Your task to perform on an android device: Show me the alarms in the clock app Image 0: 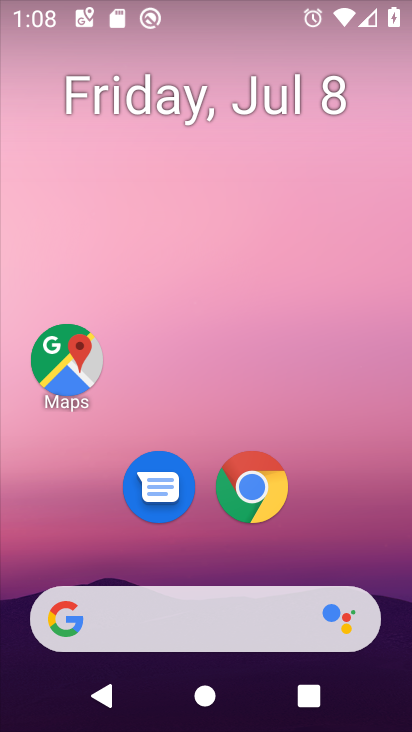
Step 0: drag from (375, 530) to (353, 123)
Your task to perform on an android device: Show me the alarms in the clock app Image 1: 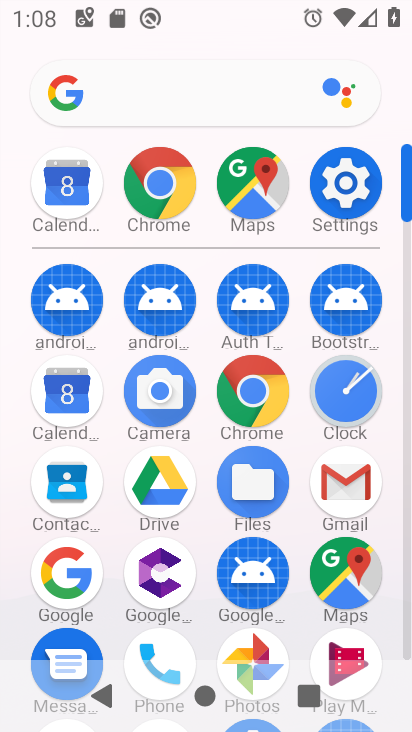
Step 1: click (359, 391)
Your task to perform on an android device: Show me the alarms in the clock app Image 2: 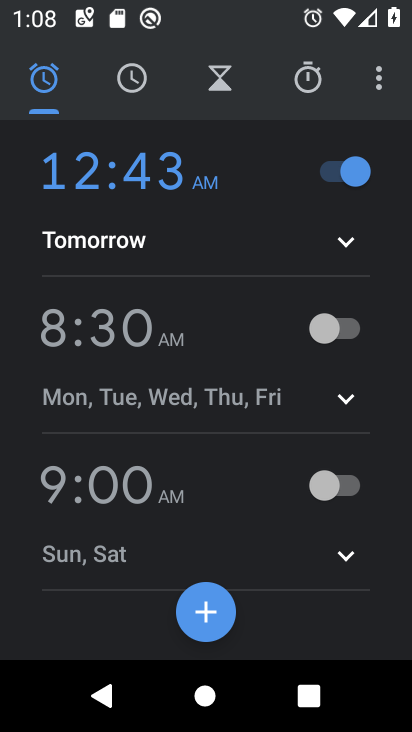
Step 2: task complete